Your task to perform on an android device: open a new tab in the chrome app Image 0: 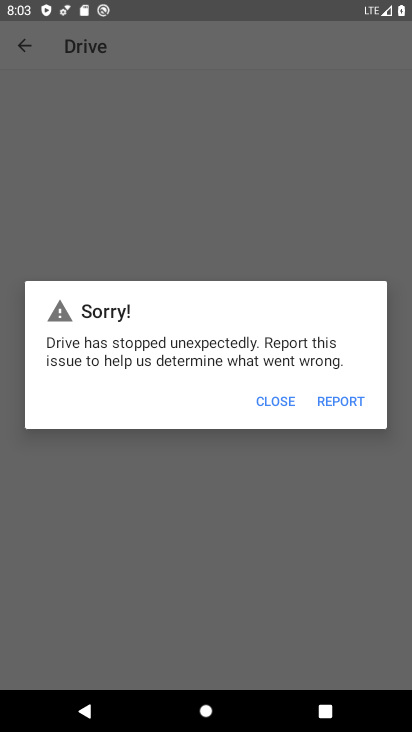
Step 0: press back button
Your task to perform on an android device: open a new tab in the chrome app Image 1: 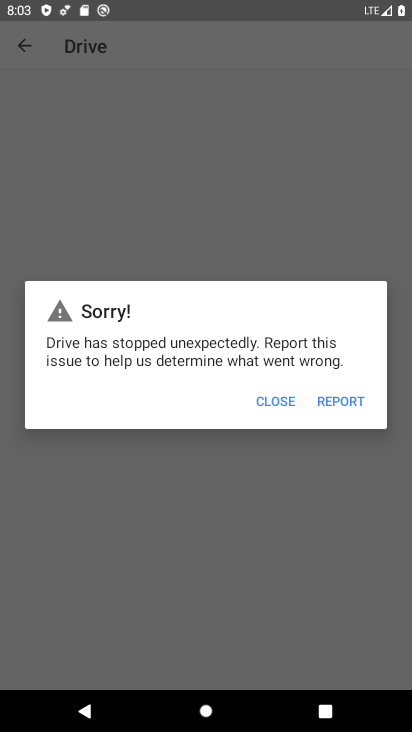
Step 1: press back button
Your task to perform on an android device: open a new tab in the chrome app Image 2: 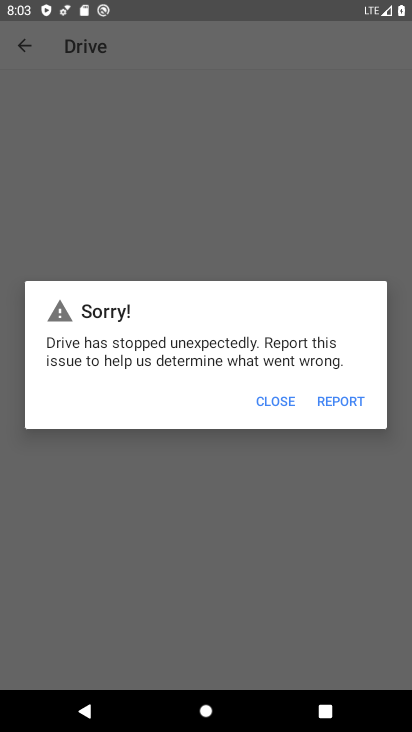
Step 2: press home button
Your task to perform on an android device: open a new tab in the chrome app Image 3: 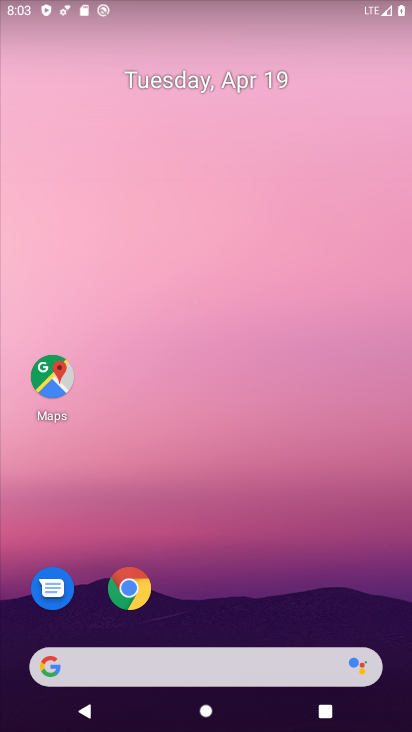
Step 3: click (140, 572)
Your task to perform on an android device: open a new tab in the chrome app Image 4: 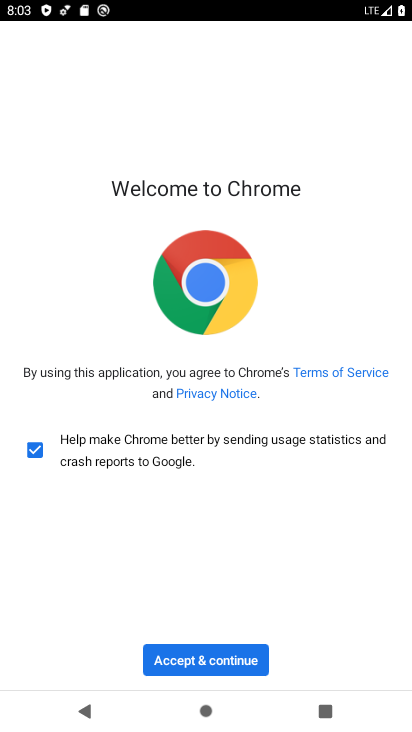
Step 4: click (172, 674)
Your task to perform on an android device: open a new tab in the chrome app Image 5: 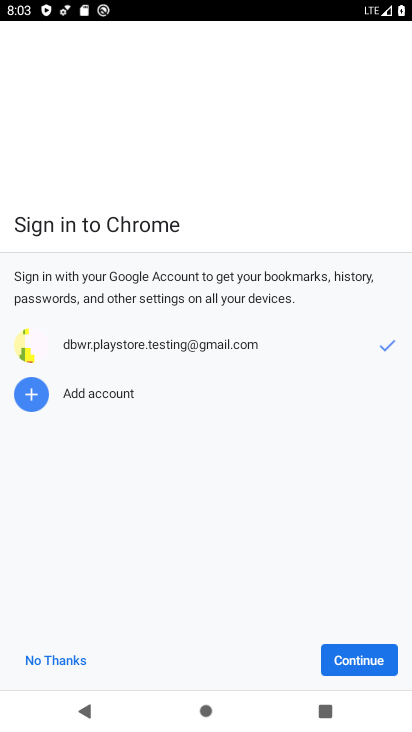
Step 5: click (358, 662)
Your task to perform on an android device: open a new tab in the chrome app Image 6: 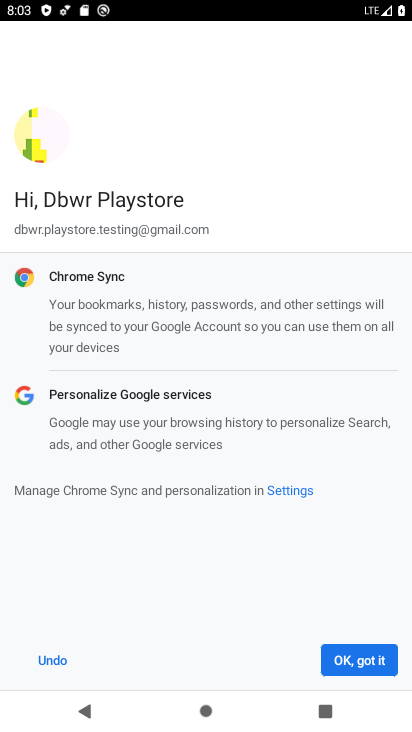
Step 6: click (358, 662)
Your task to perform on an android device: open a new tab in the chrome app Image 7: 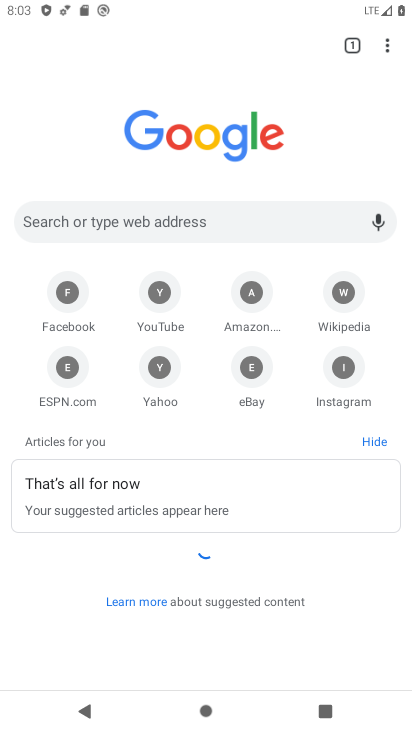
Step 7: click (348, 47)
Your task to perform on an android device: open a new tab in the chrome app Image 8: 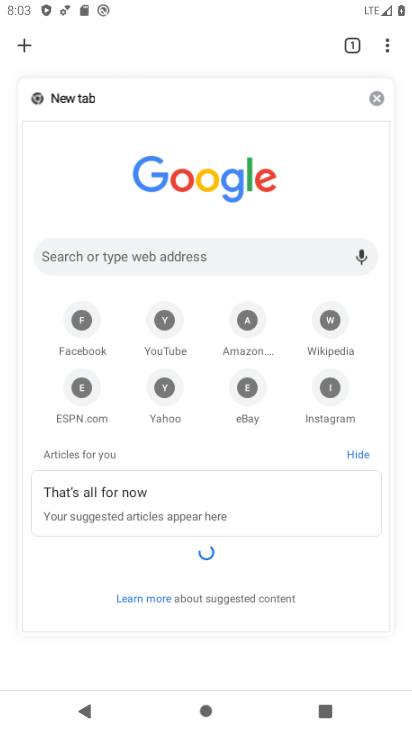
Step 8: click (27, 47)
Your task to perform on an android device: open a new tab in the chrome app Image 9: 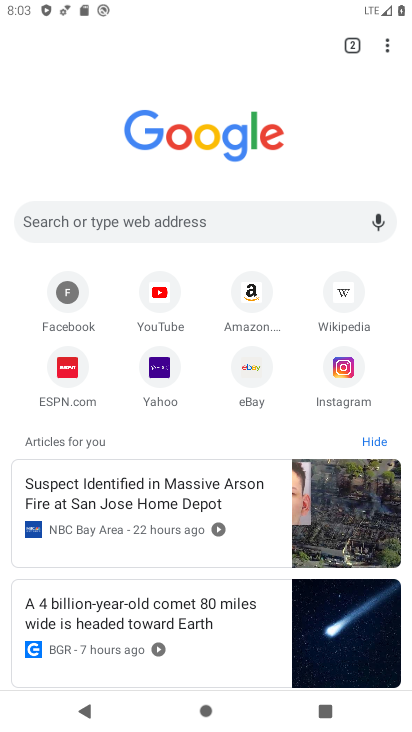
Step 9: task complete